Your task to perform on an android device: toggle priority inbox in the gmail app Image 0: 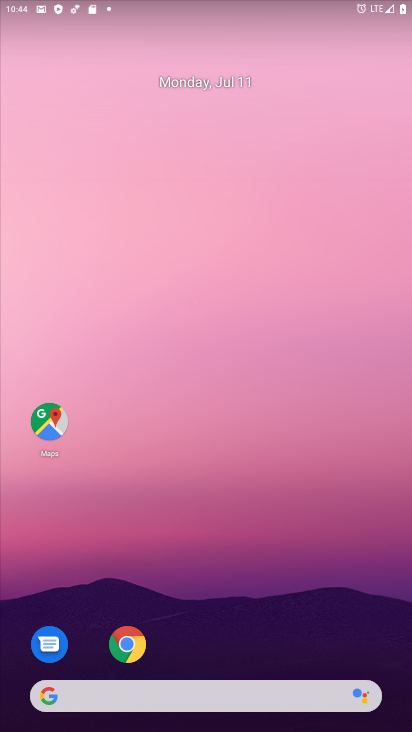
Step 0: drag from (235, 647) to (235, 188)
Your task to perform on an android device: toggle priority inbox in the gmail app Image 1: 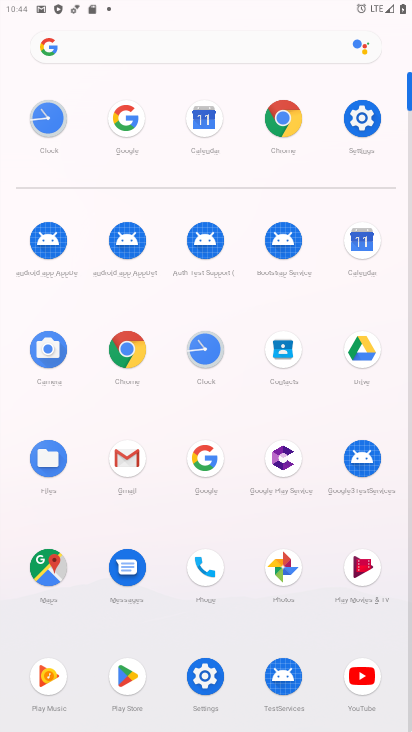
Step 1: click (125, 458)
Your task to perform on an android device: toggle priority inbox in the gmail app Image 2: 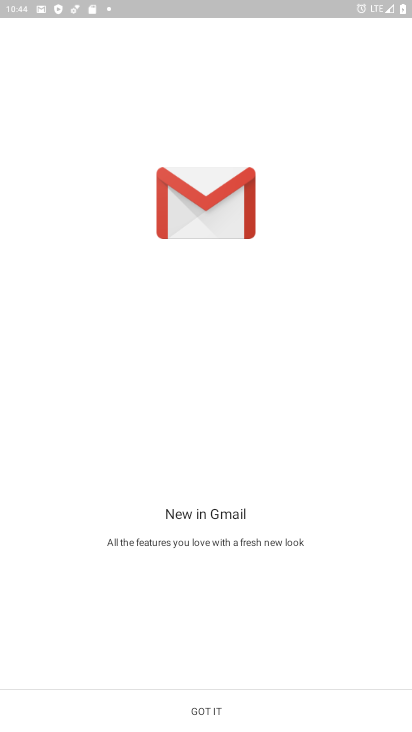
Step 2: click (215, 700)
Your task to perform on an android device: toggle priority inbox in the gmail app Image 3: 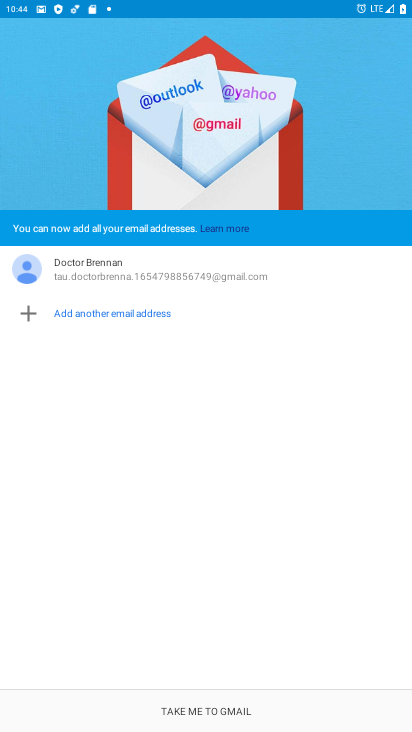
Step 3: click (215, 712)
Your task to perform on an android device: toggle priority inbox in the gmail app Image 4: 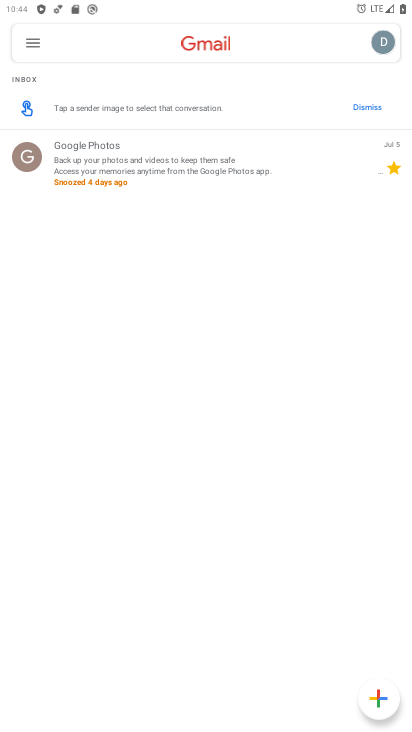
Step 4: click (30, 38)
Your task to perform on an android device: toggle priority inbox in the gmail app Image 5: 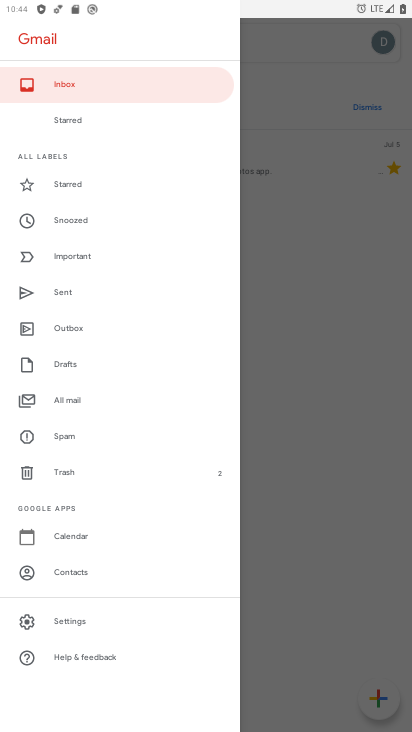
Step 5: click (90, 622)
Your task to perform on an android device: toggle priority inbox in the gmail app Image 6: 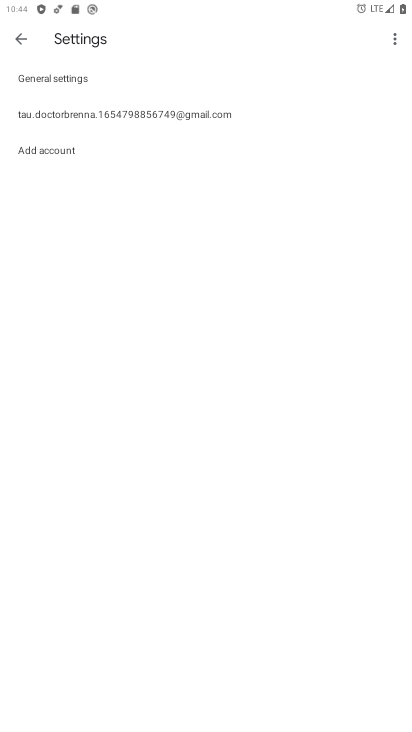
Step 6: click (121, 100)
Your task to perform on an android device: toggle priority inbox in the gmail app Image 7: 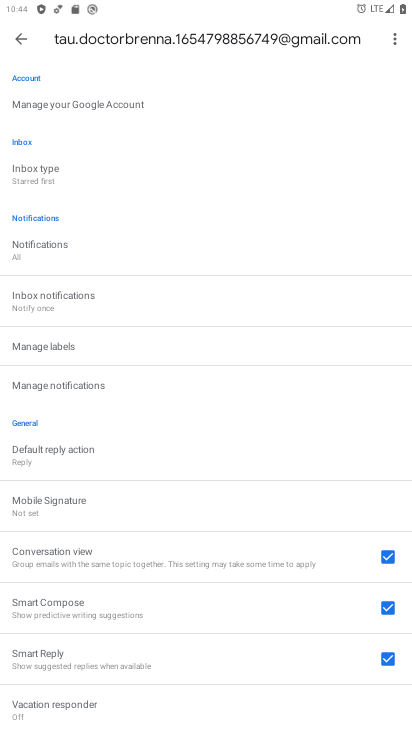
Step 7: click (52, 171)
Your task to perform on an android device: toggle priority inbox in the gmail app Image 8: 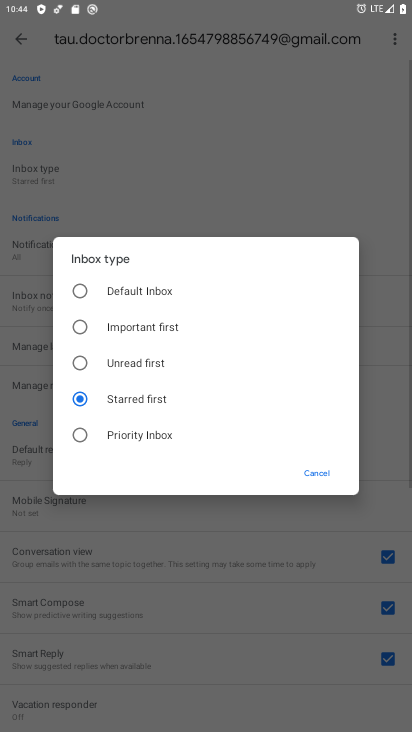
Step 8: click (104, 286)
Your task to perform on an android device: toggle priority inbox in the gmail app Image 9: 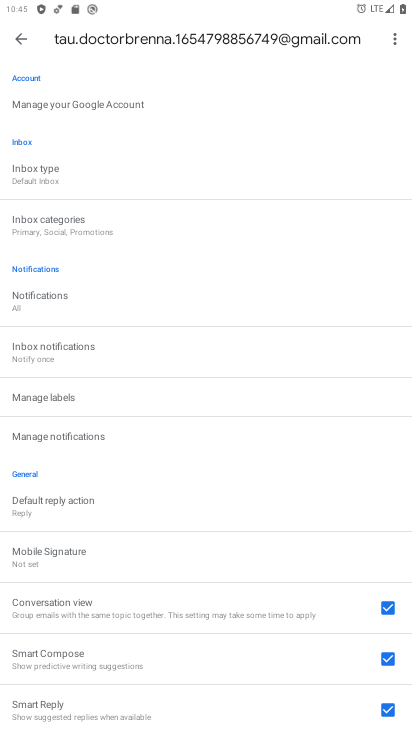
Step 9: click (40, 168)
Your task to perform on an android device: toggle priority inbox in the gmail app Image 10: 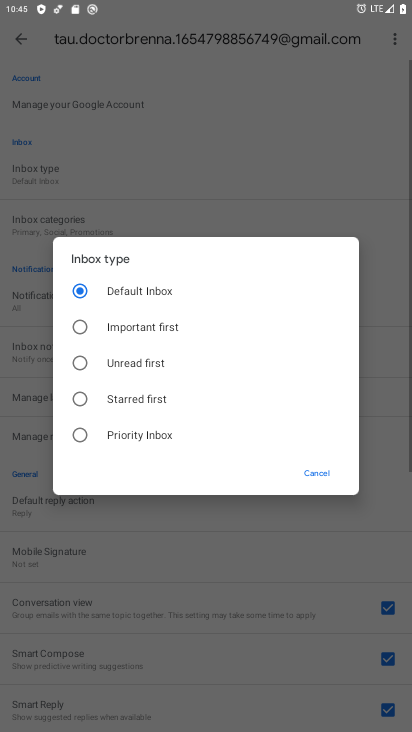
Step 10: click (122, 433)
Your task to perform on an android device: toggle priority inbox in the gmail app Image 11: 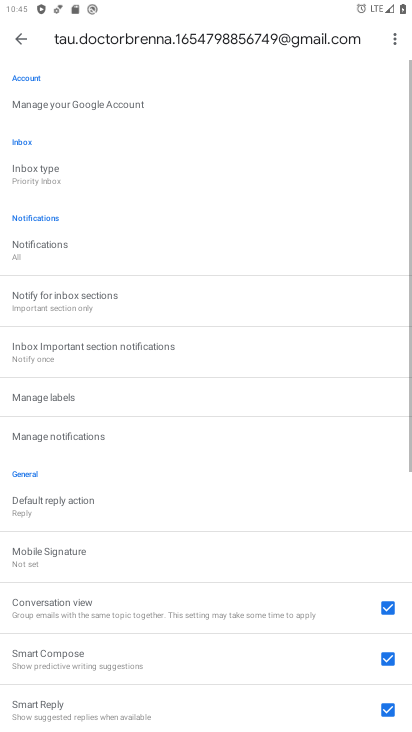
Step 11: task complete